Your task to perform on an android device: delete location history Image 0: 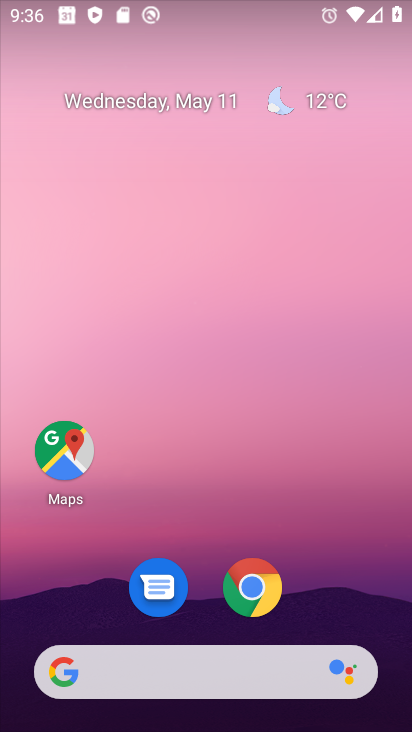
Step 0: click (65, 438)
Your task to perform on an android device: delete location history Image 1: 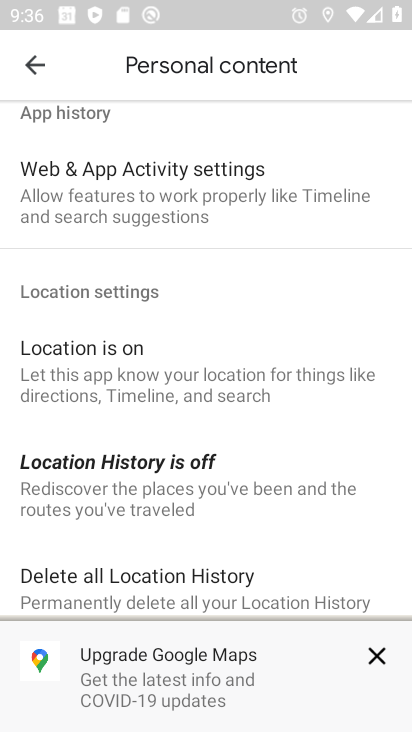
Step 1: click (156, 575)
Your task to perform on an android device: delete location history Image 2: 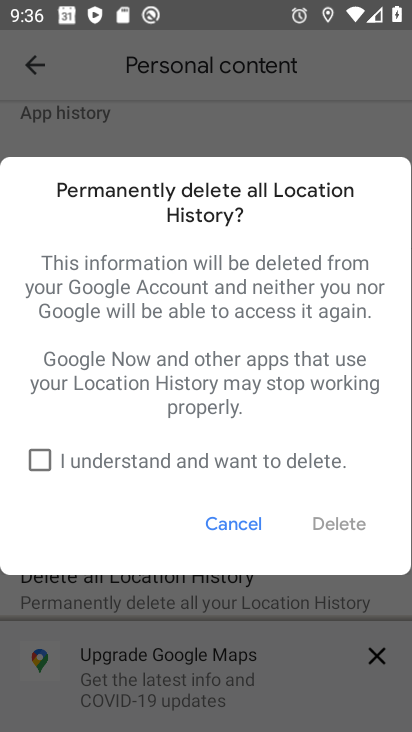
Step 2: click (41, 453)
Your task to perform on an android device: delete location history Image 3: 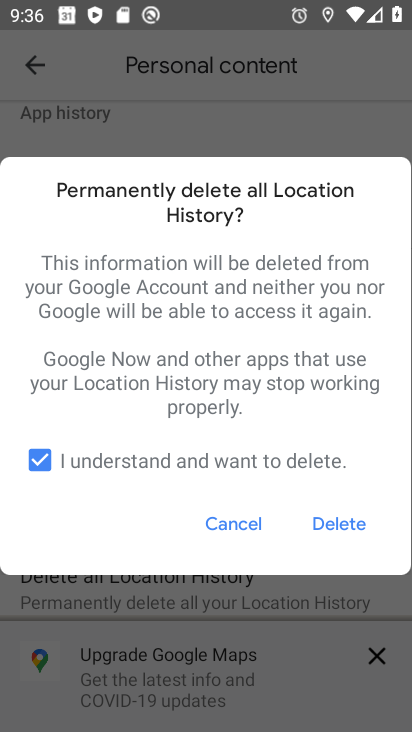
Step 3: click (340, 525)
Your task to perform on an android device: delete location history Image 4: 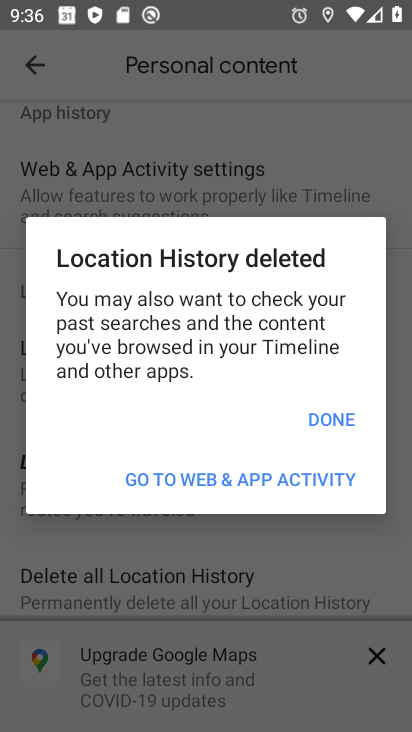
Step 4: click (343, 415)
Your task to perform on an android device: delete location history Image 5: 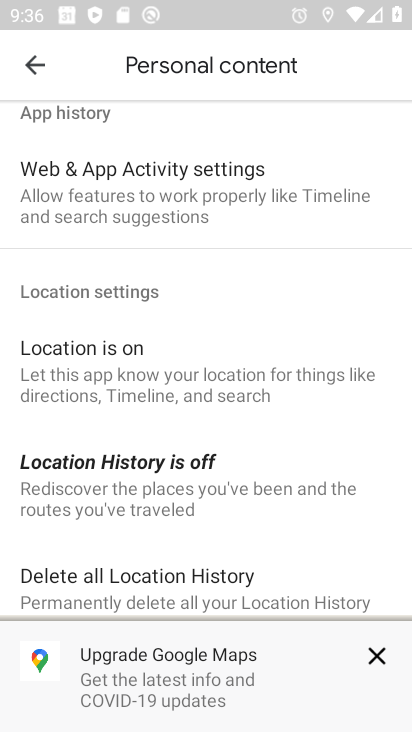
Step 5: task complete